Your task to perform on an android device: turn off sleep mode Image 0: 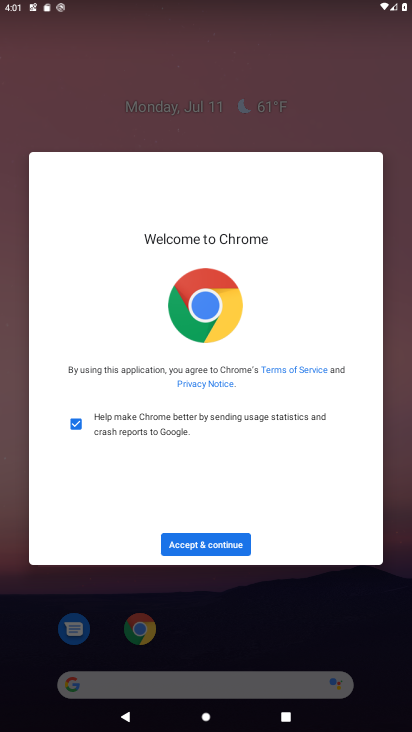
Step 0: press home button
Your task to perform on an android device: turn off sleep mode Image 1: 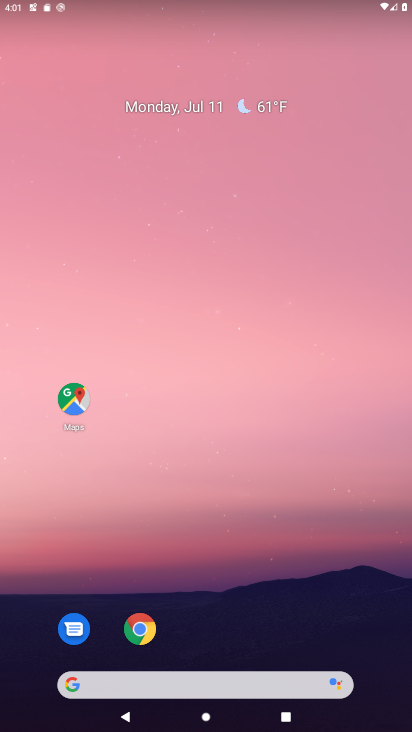
Step 1: drag from (324, 7) to (297, 295)
Your task to perform on an android device: turn off sleep mode Image 2: 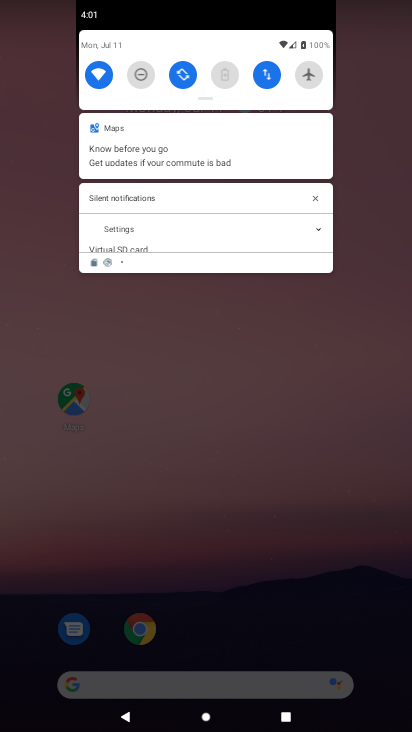
Step 2: drag from (297, 295) to (270, 472)
Your task to perform on an android device: turn off sleep mode Image 3: 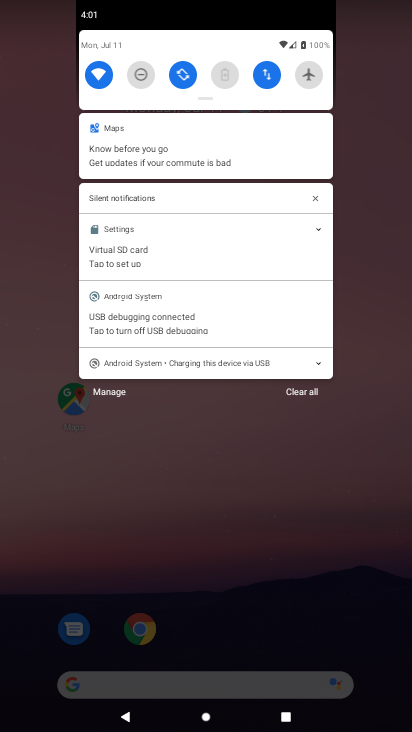
Step 3: drag from (202, 101) to (189, 439)
Your task to perform on an android device: turn off sleep mode Image 4: 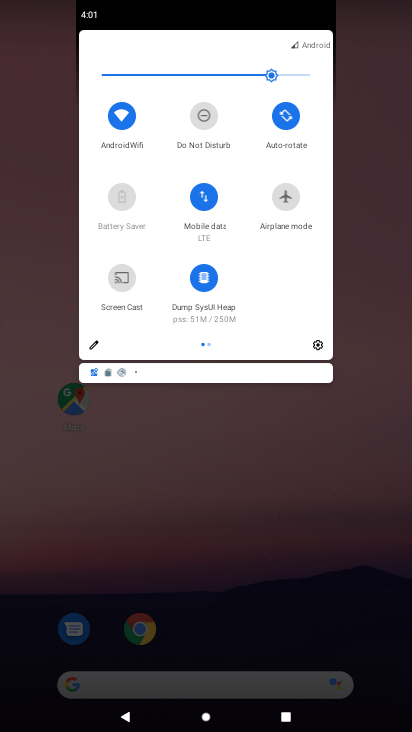
Step 4: drag from (313, 252) to (59, 201)
Your task to perform on an android device: turn off sleep mode Image 5: 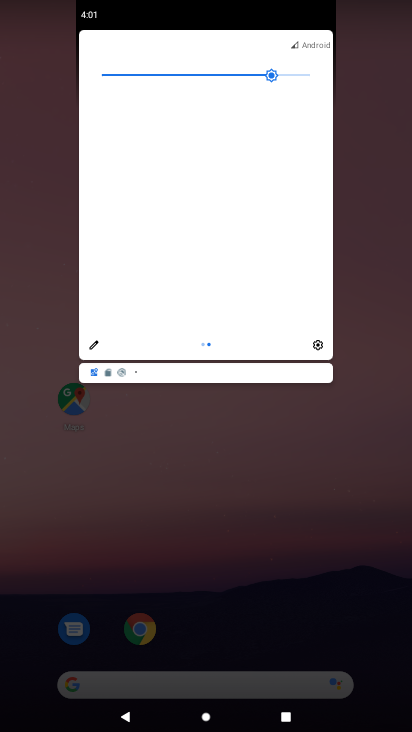
Step 5: click (92, 344)
Your task to perform on an android device: turn off sleep mode Image 6: 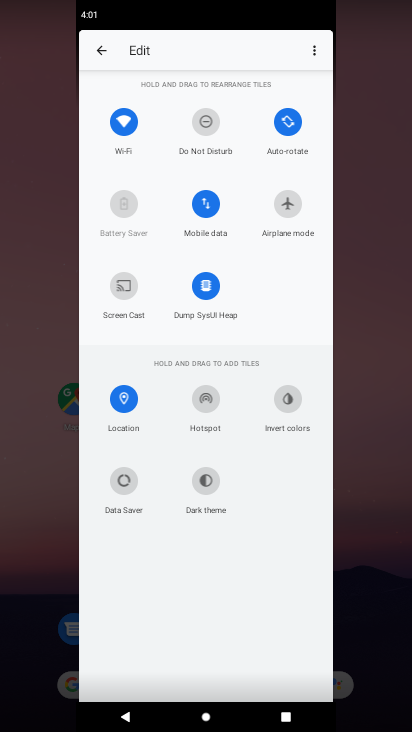
Step 6: task complete